Your task to perform on an android device: Go to eBay Image 0: 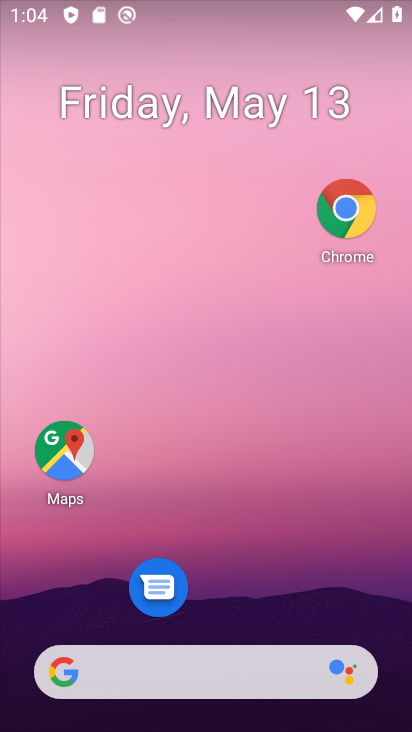
Step 0: click (350, 196)
Your task to perform on an android device: Go to eBay Image 1: 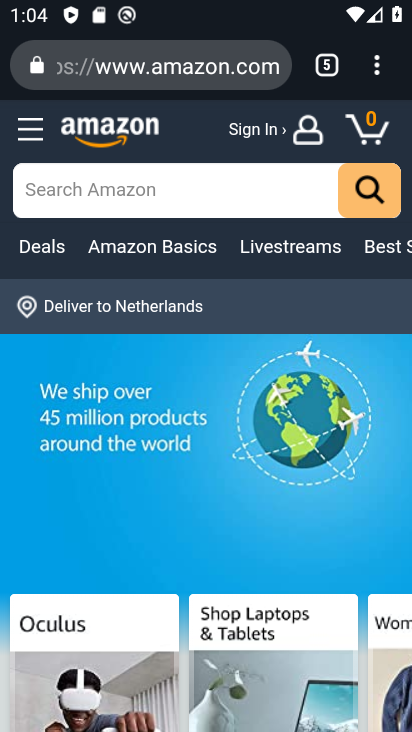
Step 1: click (321, 64)
Your task to perform on an android device: Go to eBay Image 2: 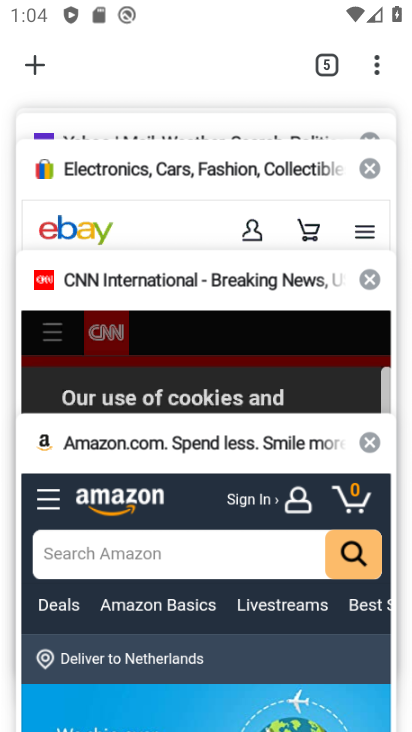
Step 2: click (92, 232)
Your task to perform on an android device: Go to eBay Image 3: 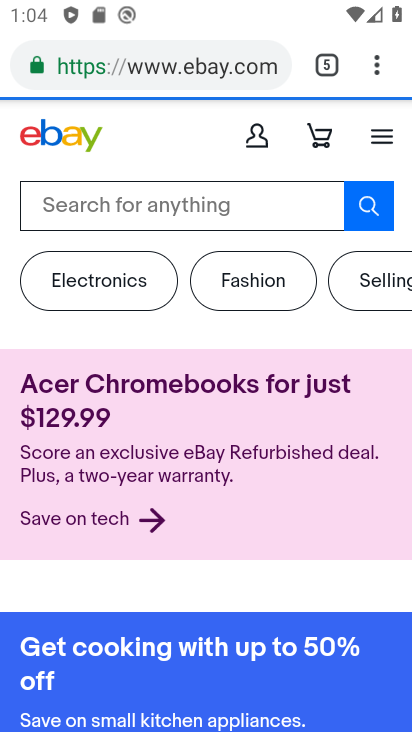
Step 3: task complete